Your task to perform on an android device: empty trash in google photos Image 0: 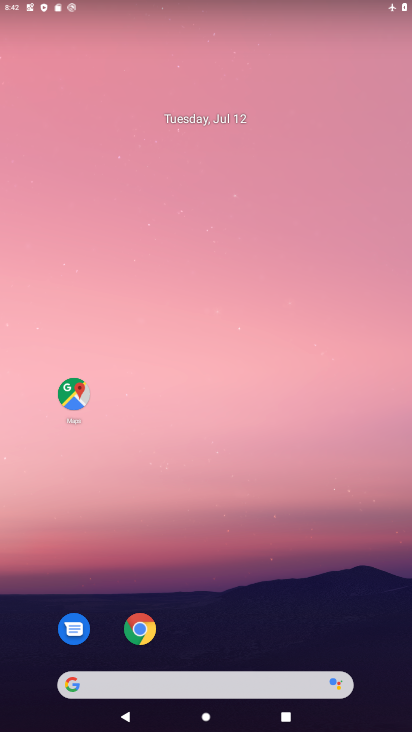
Step 0: click (229, 205)
Your task to perform on an android device: empty trash in google photos Image 1: 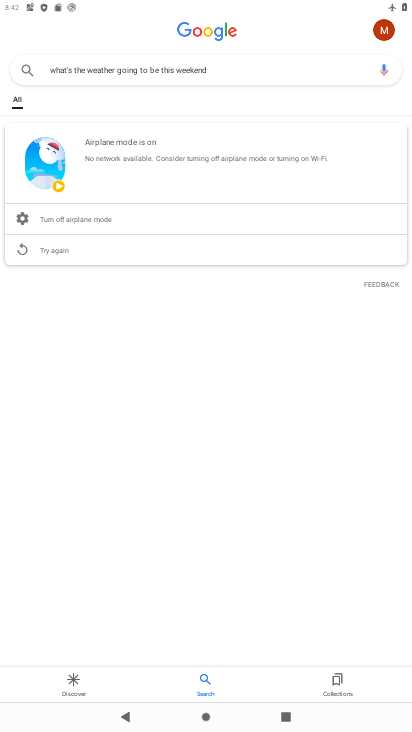
Step 1: press home button
Your task to perform on an android device: empty trash in google photos Image 2: 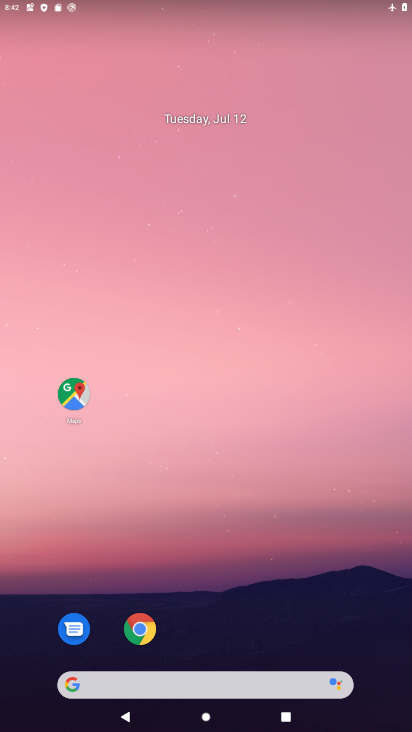
Step 2: drag from (238, 663) to (232, 130)
Your task to perform on an android device: empty trash in google photos Image 3: 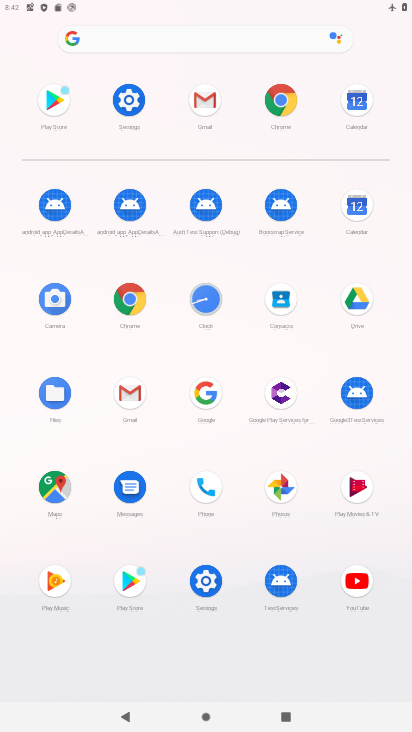
Step 3: click (203, 100)
Your task to perform on an android device: empty trash in google photos Image 4: 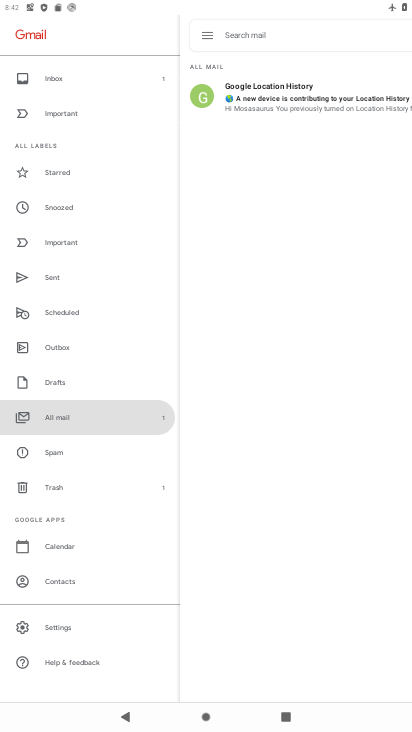
Step 4: click (70, 485)
Your task to perform on an android device: empty trash in google photos Image 5: 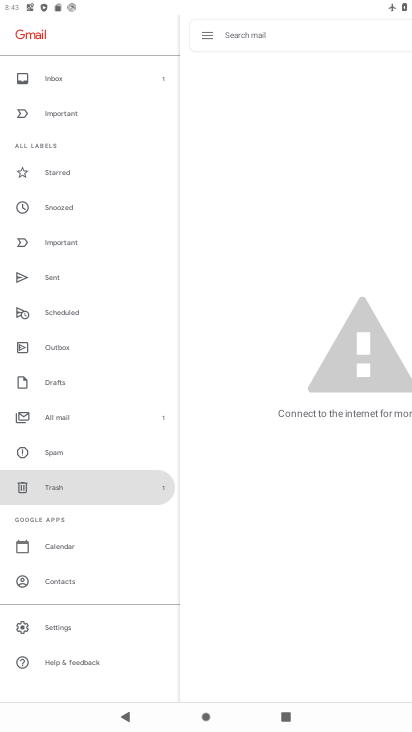
Step 5: task complete